Your task to perform on an android device: open chrome privacy settings Image 0: 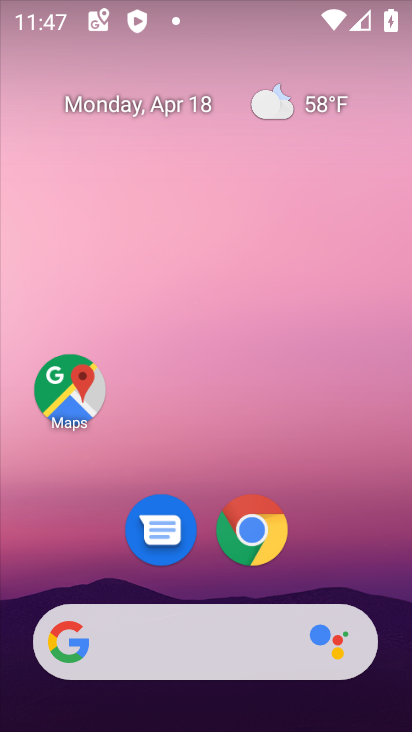
Step 0: click (251, 529)
Your task to perform on an android device: open chrome privacy settings Image 1: 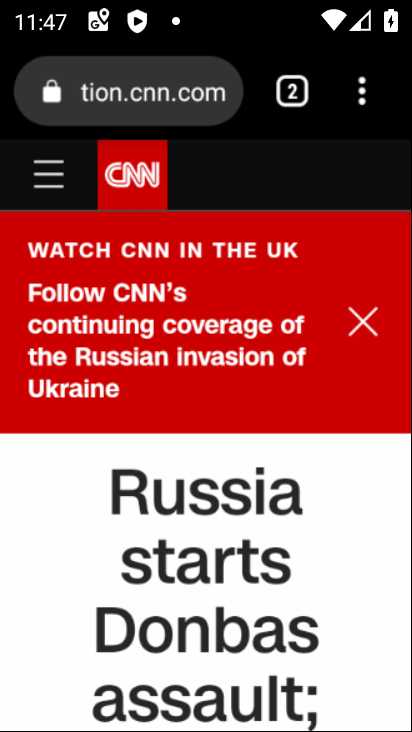
Step 1: click (369, 85)
Your task to perform on an android device: open chrome privacy settings Image 2: 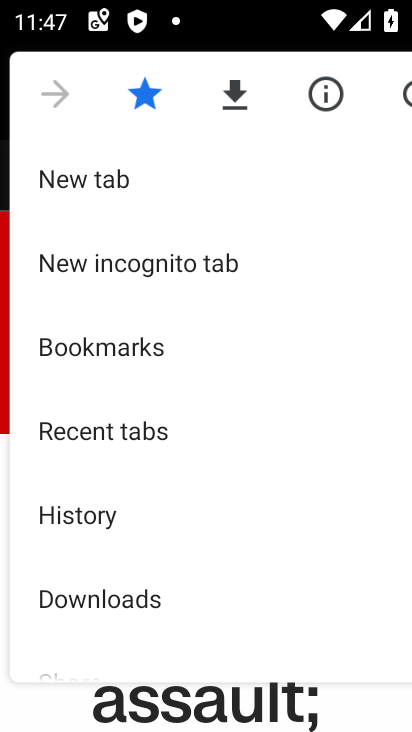
Step 2: drag from (245, 464) to (250, 212)
Your task to perform on an android device: open chrome privacy settings Image 3: 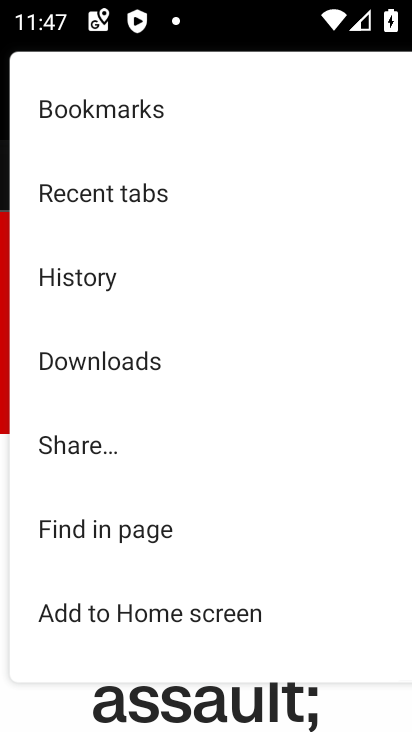
Step 3: drag from (206, 518) to (249, 160)
Your task to perform on an android device: open chrome privacy settings Image 4: 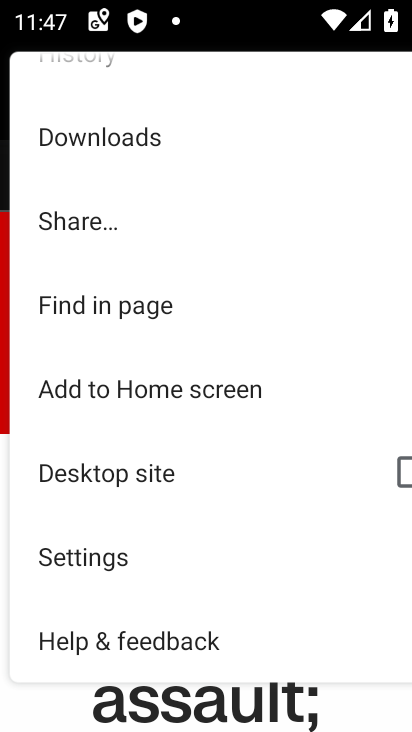
Step 4: click (141, 563)
Your task to perform on an android device: open chrome privacy settings Image 5: 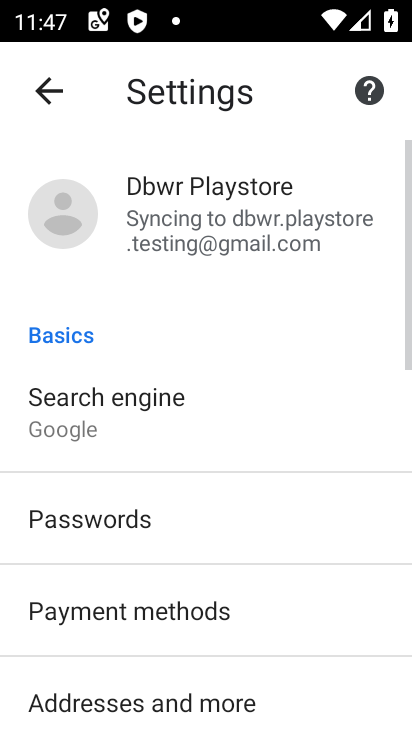
Step 5: drag from (205, 598) to (238, 165)
Your task to perform on an android device: open chrome privacy settings Image 6: 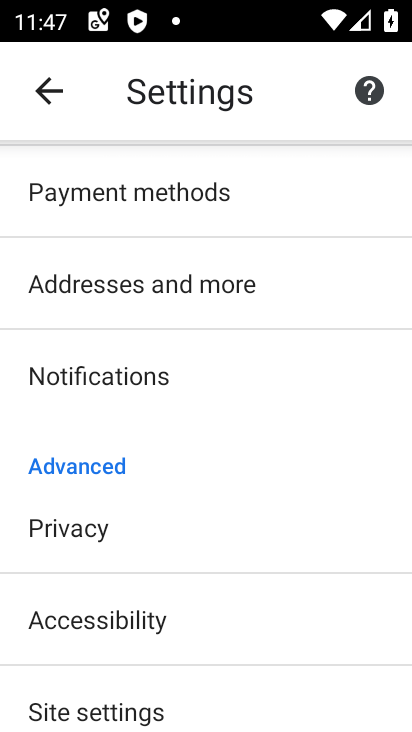
Step 6: drag from (204, 579) to (229, 247)
Your task to perform on an android device: open chrome privacy settings Image 7: 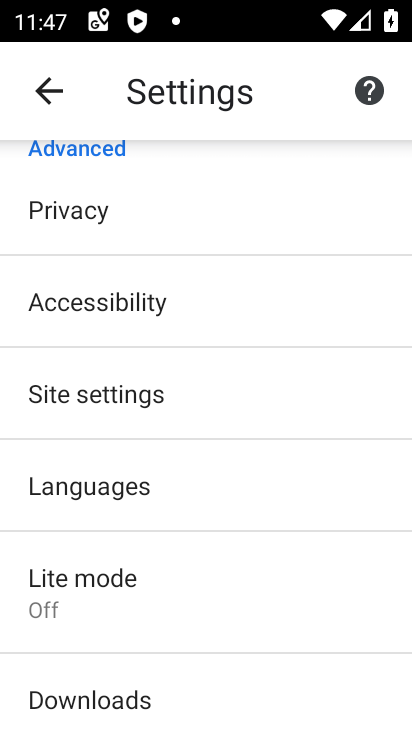
Step 7: click (105, 218)
Your task to perform on an android device: open chrome privacy settings Image 8: 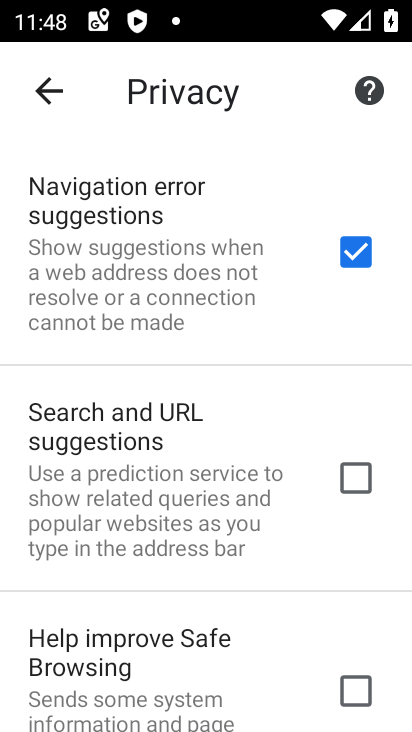
Step 8: task complete